Your task to perform on an android device: Search for Italian restaurants on Maps Image 0: 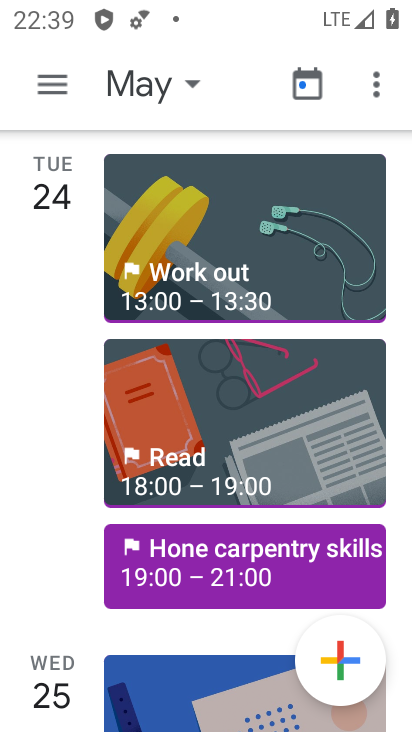
Step 0: press home button
Your task to perform on an android device: Search for Italian restaurants on Maps Image 1: 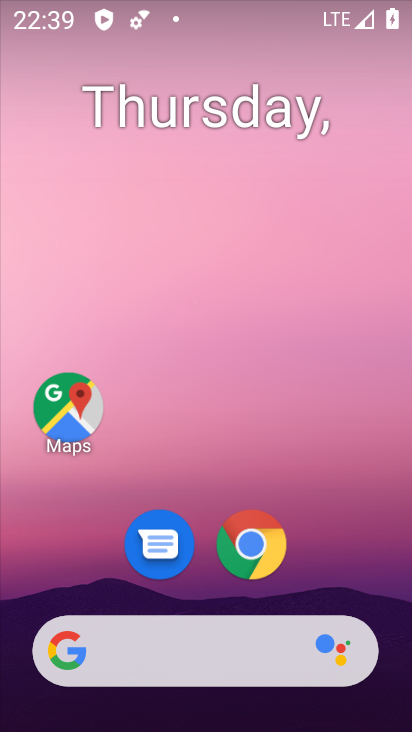
Step 1: click (58, 397)
Your task to perform on an android device: Search for Italian restaurants on Maps Image 2: 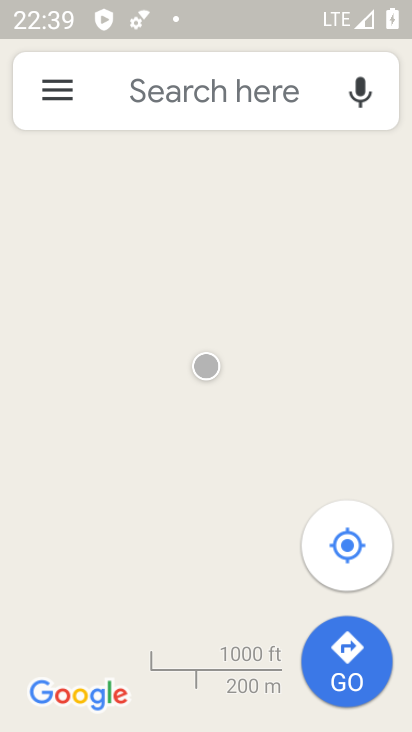
Step 2: click (185, 105)
Your task to perform on an android device: Search for Italian restaurants on Maps Image 3: 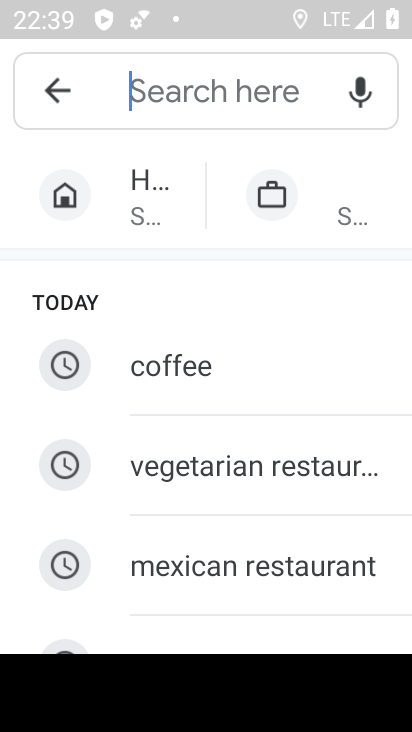
Step 3: drag from (225, 587) to (220, 248)
Your task to perform on an android device: Search for Italian restaurants on Maps Image 4: 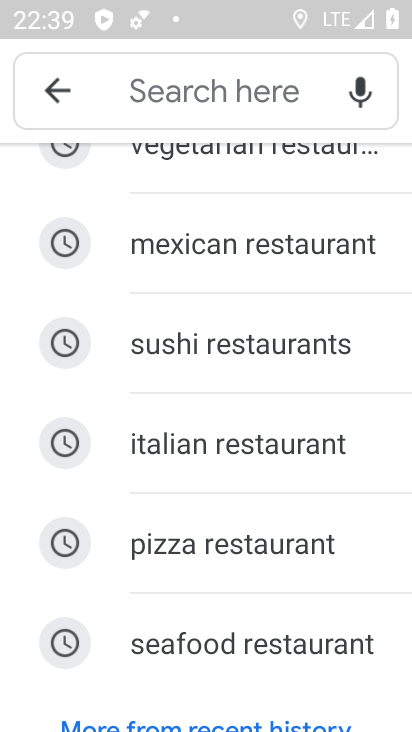
Step 4: click (189, 437)
Your task to perform on an android device: Search for Italian restaurants on Maps Image 5: 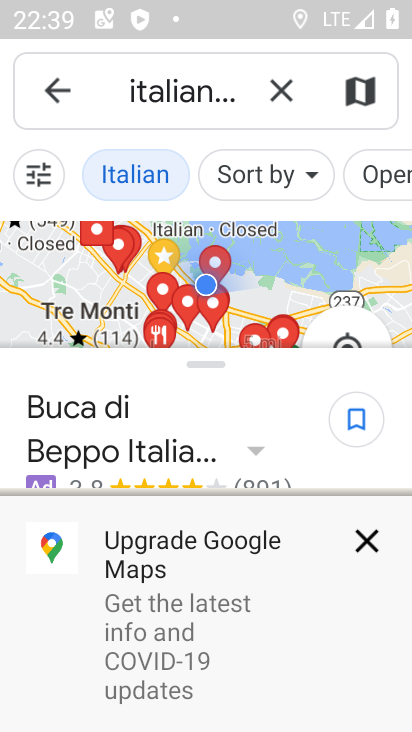
Step 5: click (363, 540)
Your task to perform on an android device: Search for Italian restaurants on Maps Image 6: 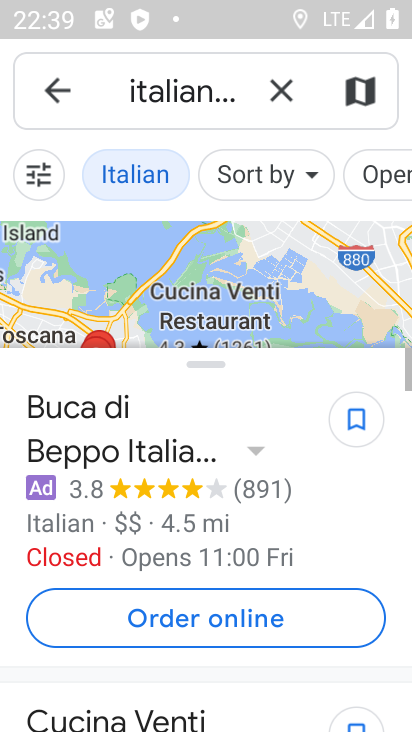
Step 6: drag from (363, 540) to (350, 338)
Your task to perform on an android device: Search for Italian restaurants on Maps Image 7: 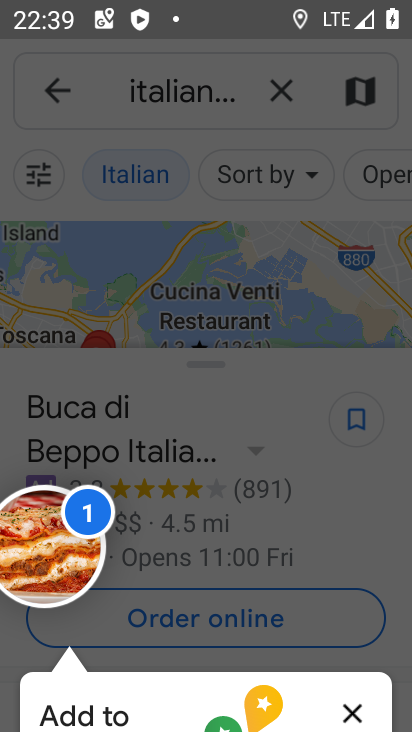
Step 7: click (243, 494)
Your task to perform on an android device: Search for Italian restaurants on Maps Image 8: 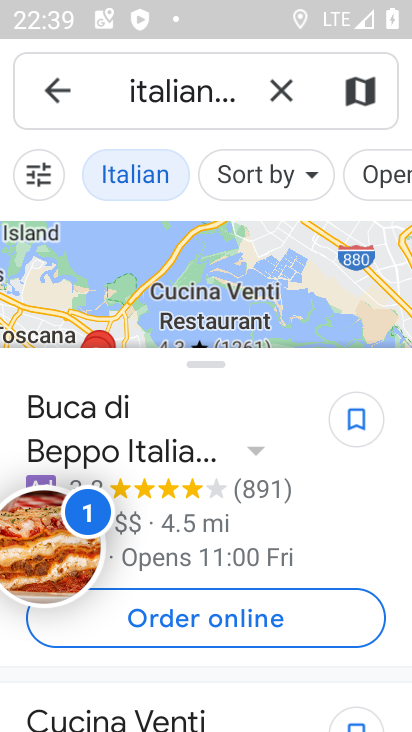
Step 8: drag from (243, 488) to (232, 205)
Your task to perform on an android device: Search for Italian restaurants on Maps Image 9: 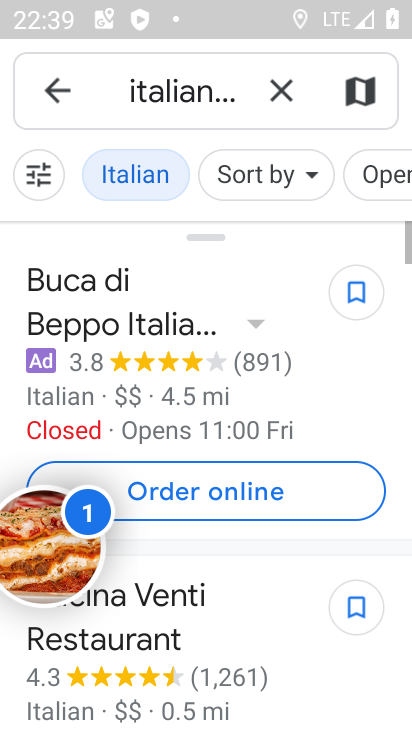
Step 9: drag from (75, 545) to (175, 731)
Your task to perform on an android device: Search for Italian restaurants on Maps Image 10: 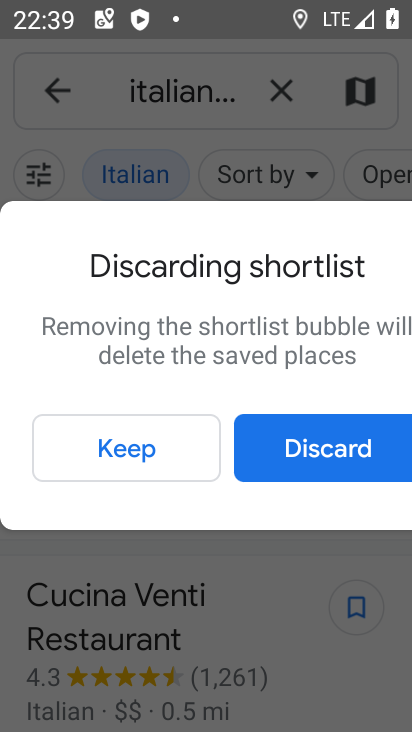
Step 10: click (376, 448)
Your task to perform on an android device: Search for Italian restaurants on Maps Image 11: 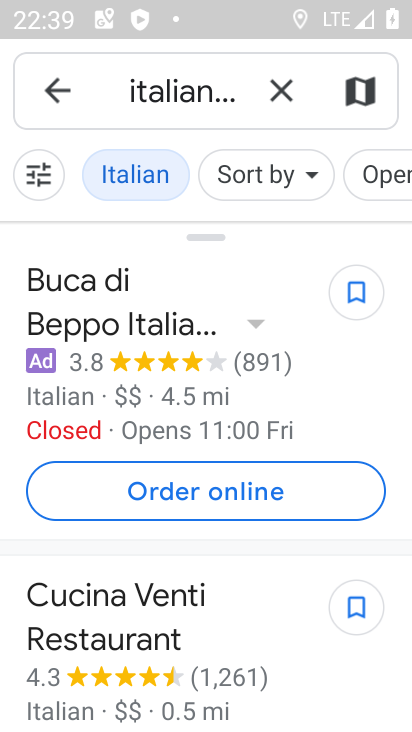
Step 11: task complete